Your task to perform on an android device: Open the map Image 0: 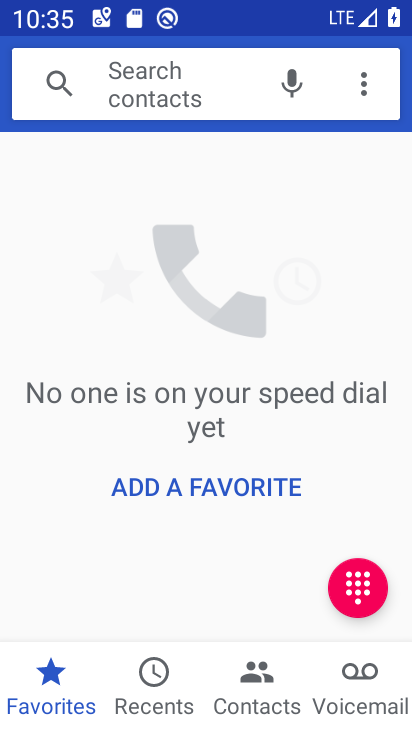
Step 0: press home button
Your task to perform on an android device: Open the map Image 1: 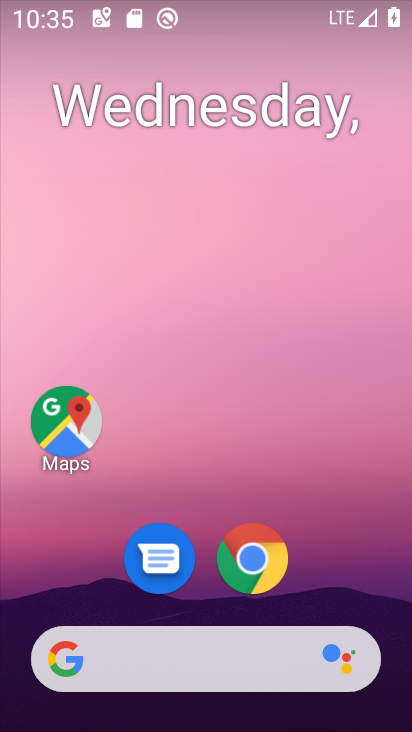
Step 1: click (59, 412)
Your task to perform on an android device: Open the map Image 2: 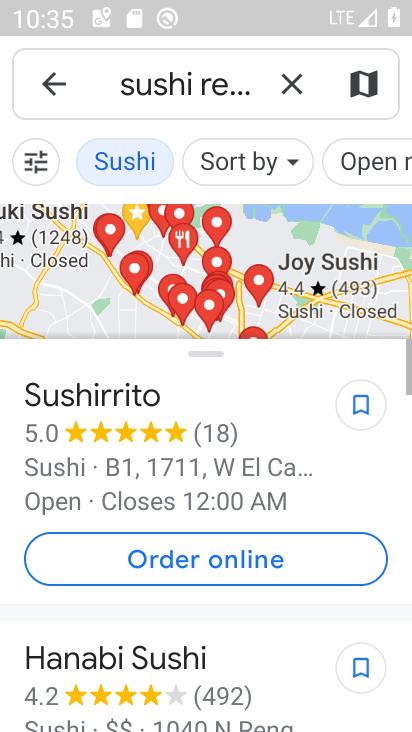
Step 2: click (51, 82)
Your task to perform on an android device: Open the map Image 3: 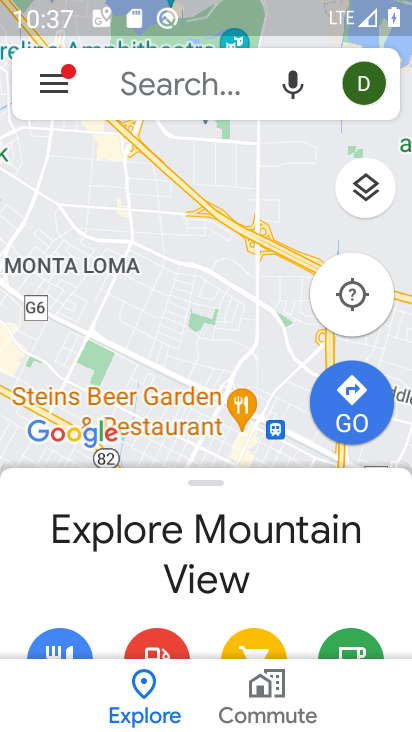
Step 3: task complete